Your task to perform on an android device: Open maps Image 0: 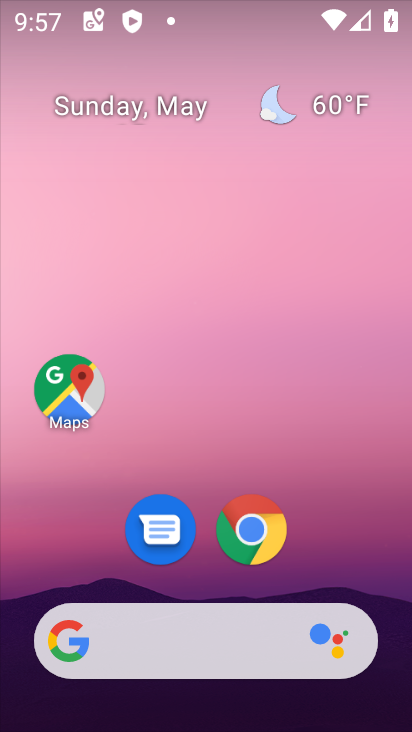
Step 0: drag from (372, 545) to (350, 321)
Your task to perform on an android device: Open maps Image 1: 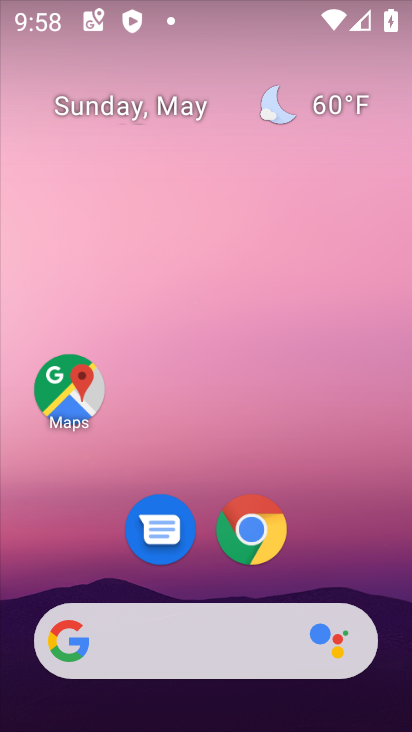
Step 1: drag from (354, 549) to (380, 254)
Your task to perform on an android device: Open maps Image 2: 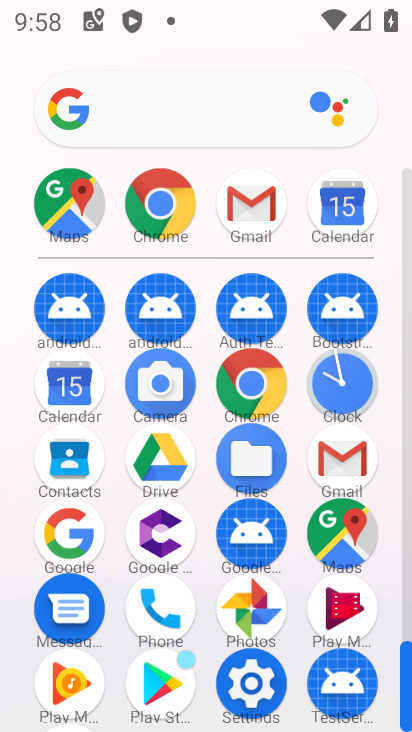
Step 2: click (343, 544)
Your task to perform on an android device: Open maps Image 3: 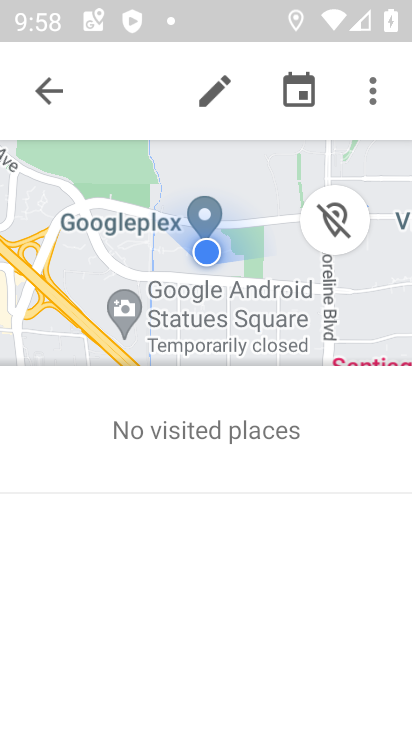
Step 3: task complete